Your task to perform on an android device: open a new tab in the chrome app Image 0: 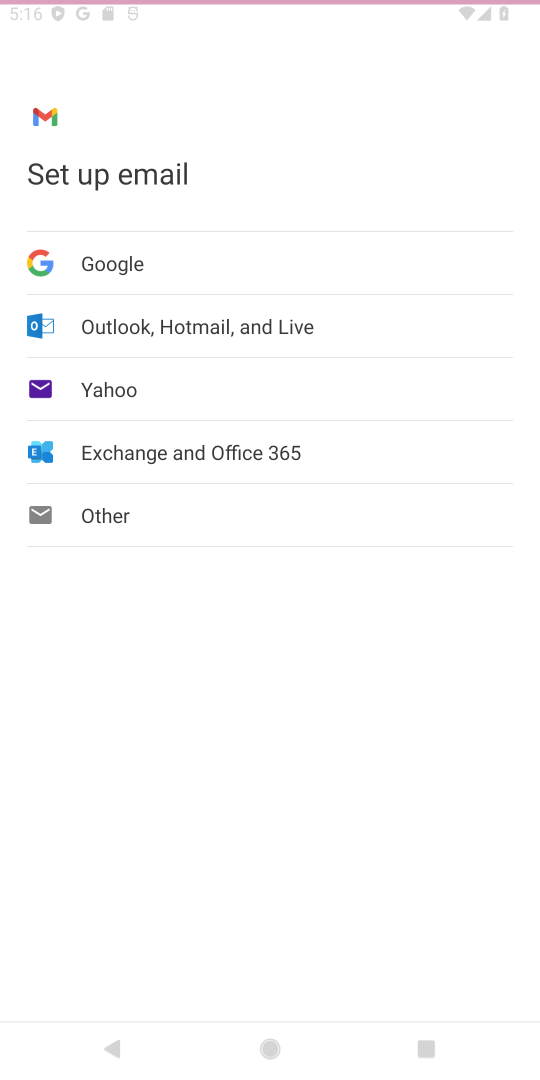
Step 0: press home button
Your task to perform on an android device: open a new tab in the chrome app Image 1: 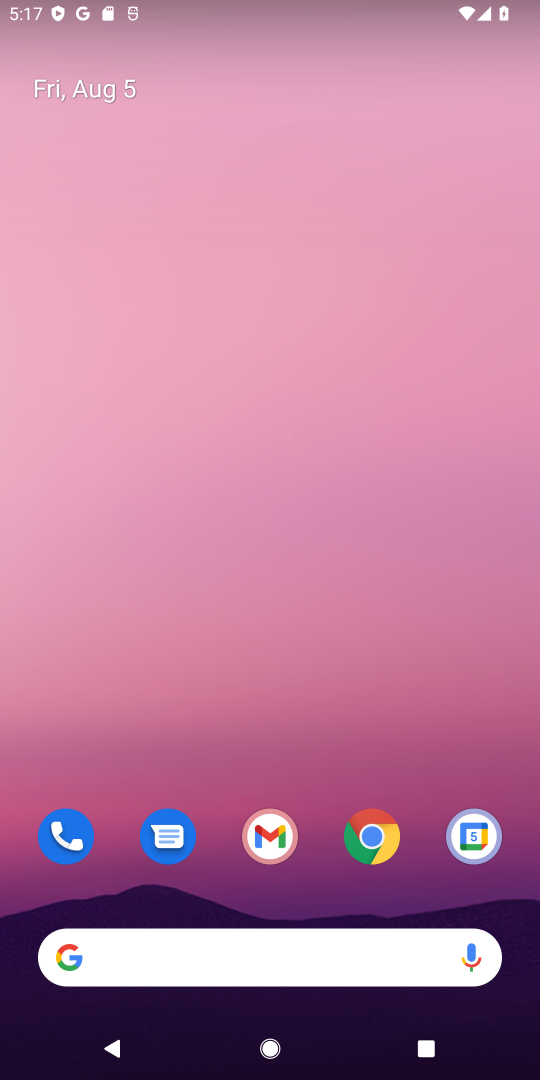
Step 1: click (380, 827)
Your task to perform on an android device: open a new tab in the chrome app Image 2: 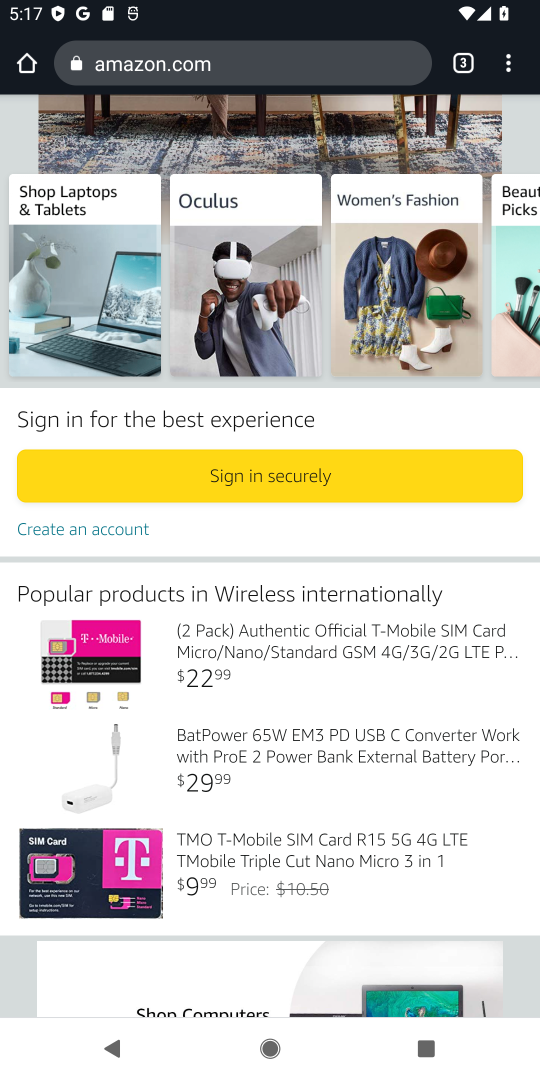
Step 2: click (462, 60)
Your task to perform on an android device: open a new tab in the chrome app Image 3: 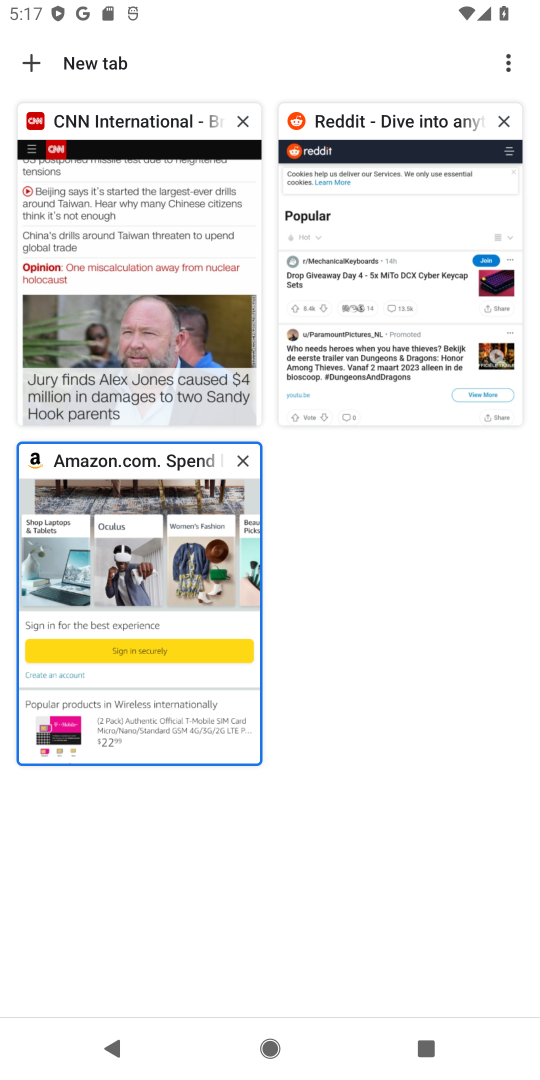
Step 3: click (29, 62)
Your task to perform on an android device: open a new tab in the chrome app Image 4: 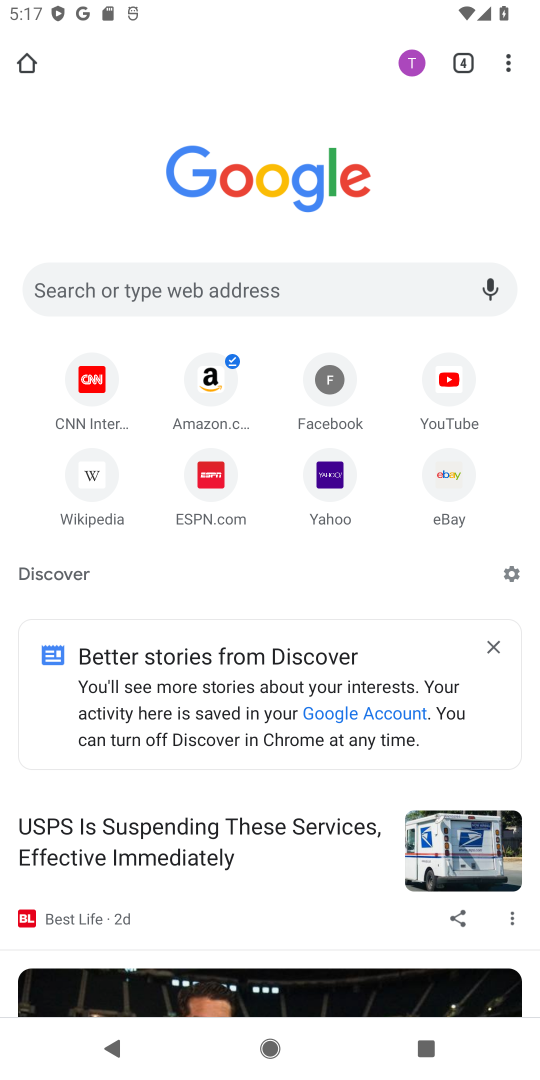
Step 4: task complete